Your task to perform on an android device: delete browsing data in the chrome app Image 0: 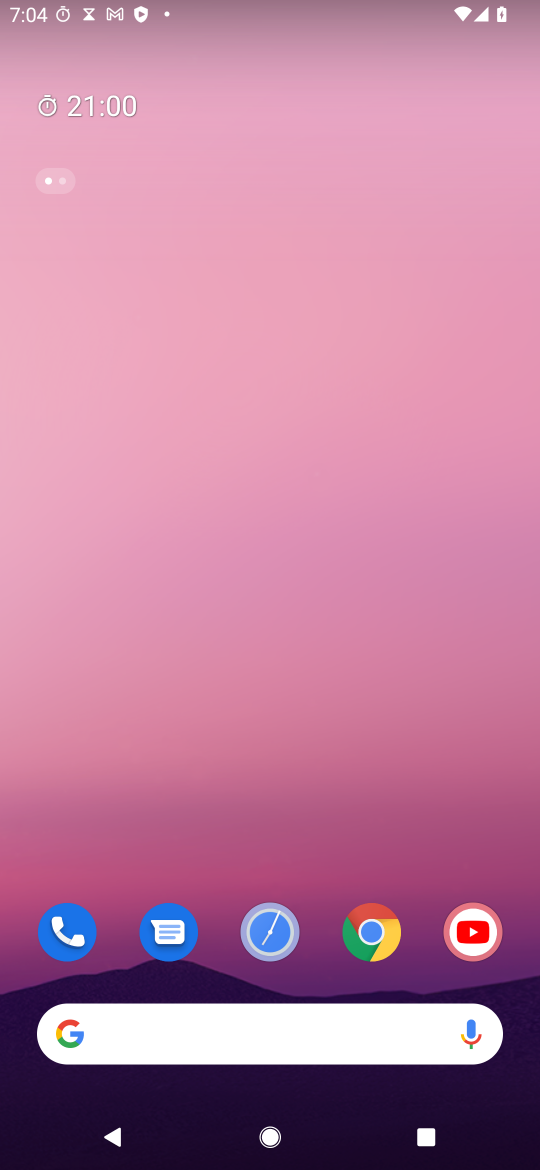
Step 0: drag from (388, 876) to (360, 3)
Your task to perform on an android device: delete browsing data in the chrome app Image 1: 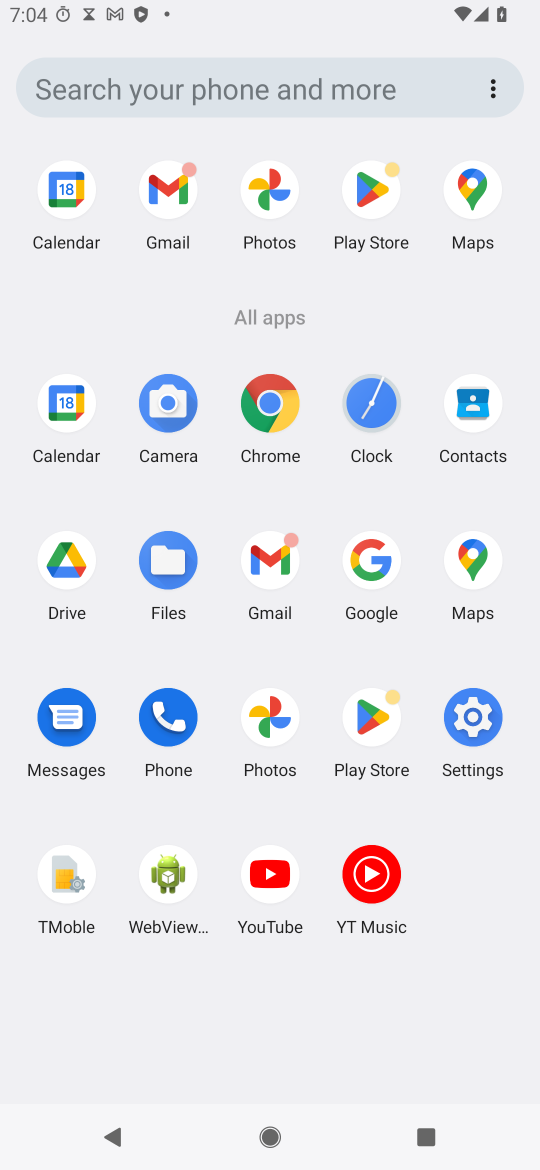
Step 1: click (255, 402)
Your task to perform on an android device: delete browsing data in the chrome app Image 2: 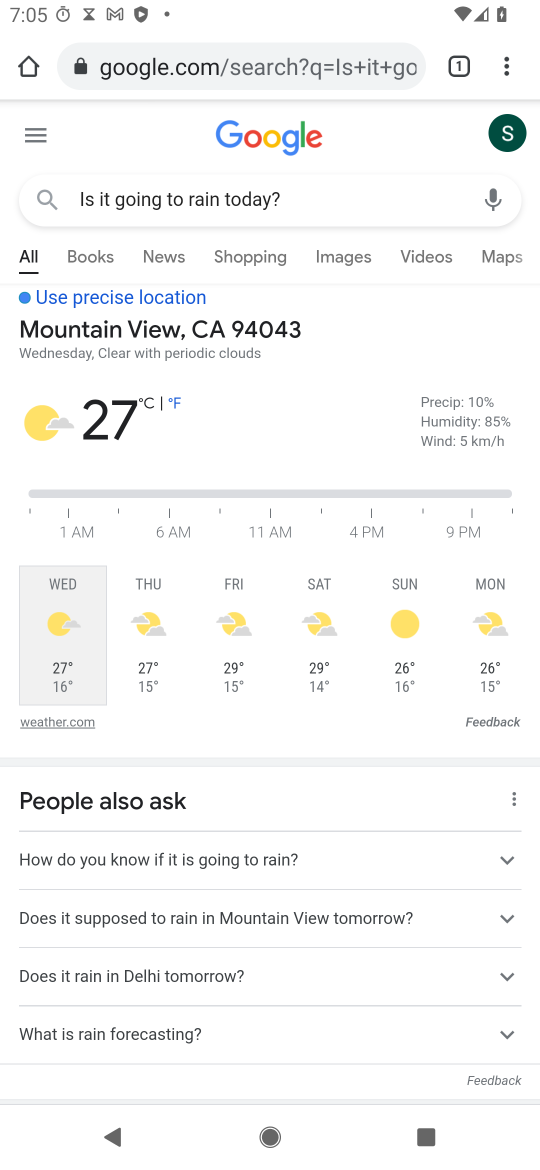
Step 2: click (519, 64)
Your task to perform on an android device: delete browsing data in the chrome app Image 3: 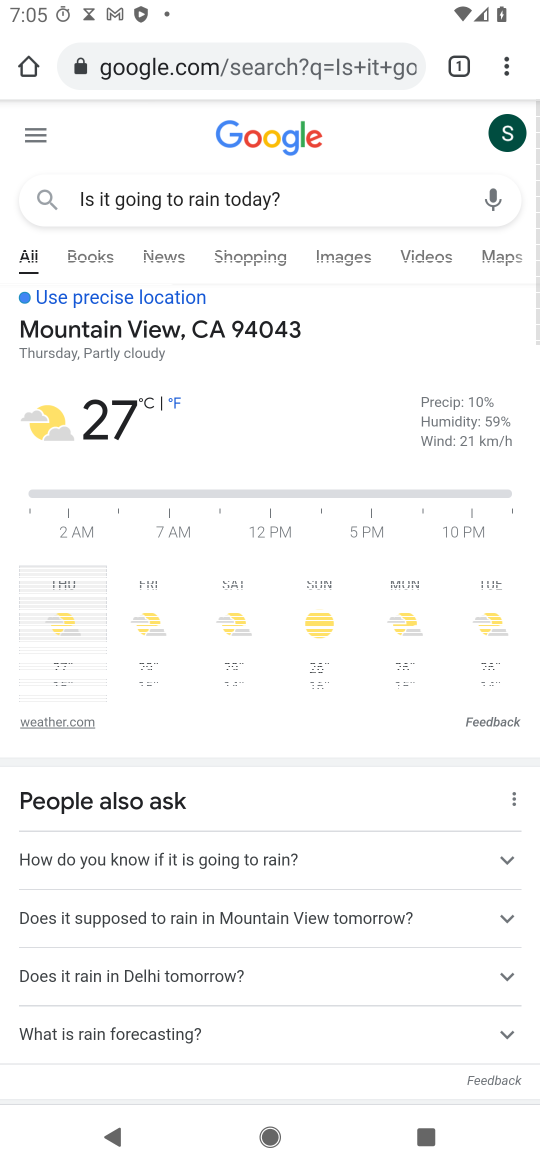
Step 3: drag from (498, 52) to (354, 871)
Your task to perform on an android device: delete browsing data in the chrome app Image 4: 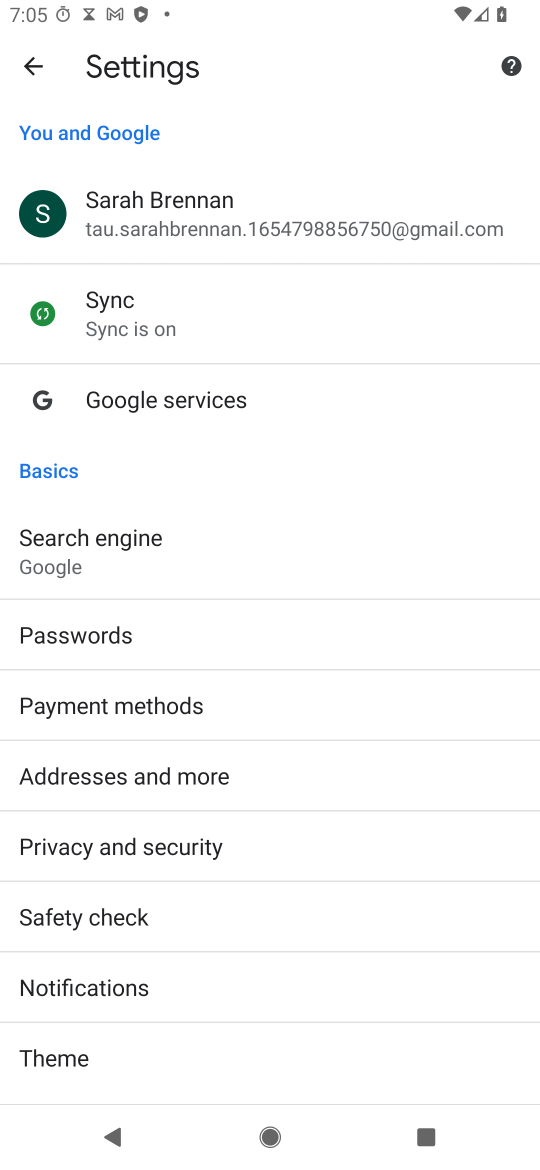
Step 4: drag from (272, 870) to (211, 329)
Your task to perform on an android device: delete browsing data in the chrome app Image 5: 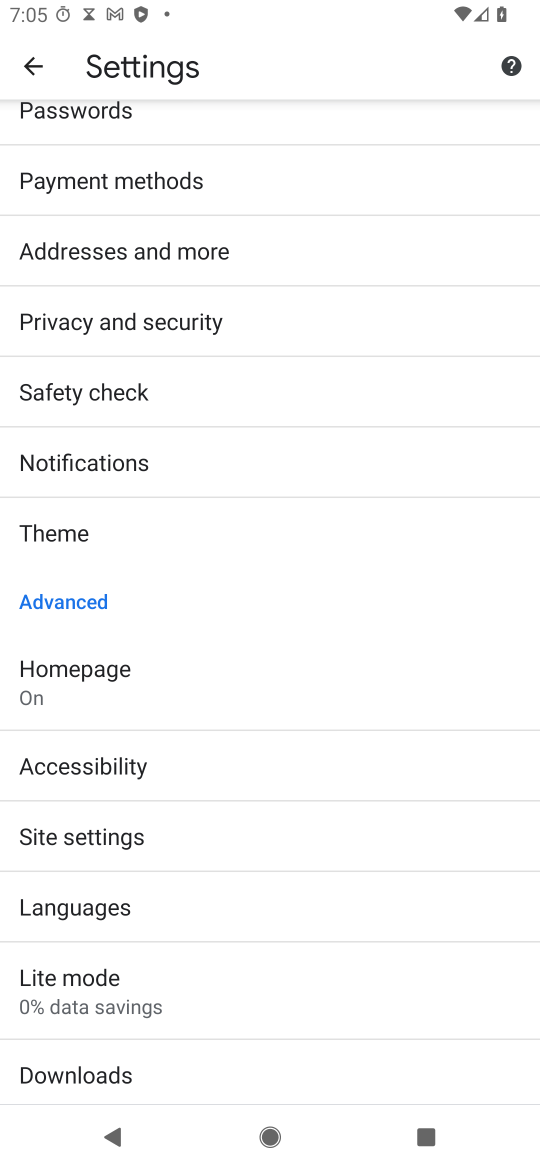
Step 5: drag from (237, 316) to (247, 794)
Your task to perform on an android device: delete browsing data in the chrome app Image 6: 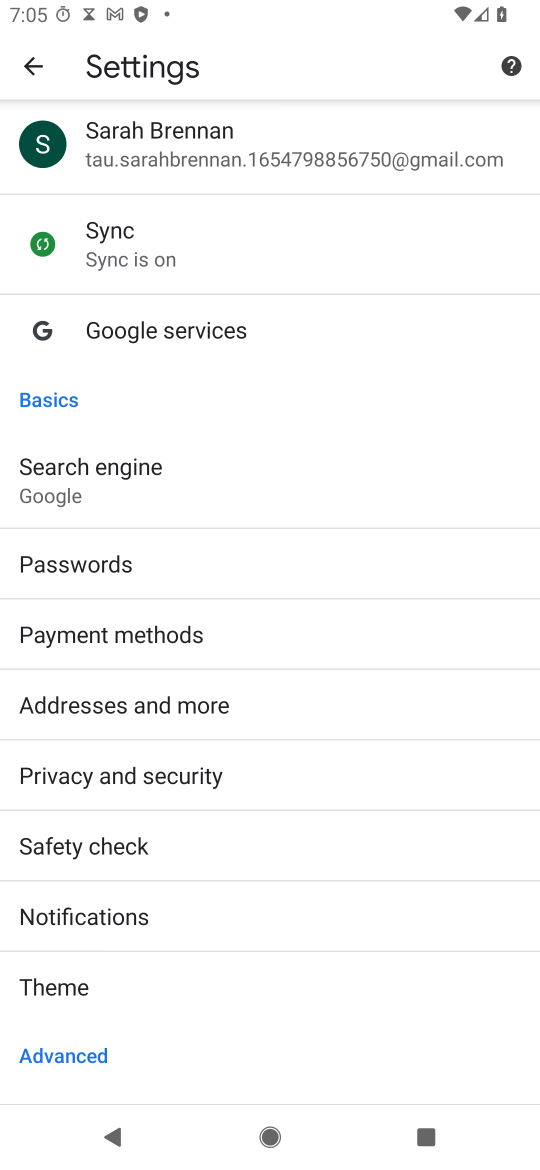
Step 6: drag from (213, 986) to (205, 180)
Your task to perform on an android device: delete browsing data in the chrome app Image 7: 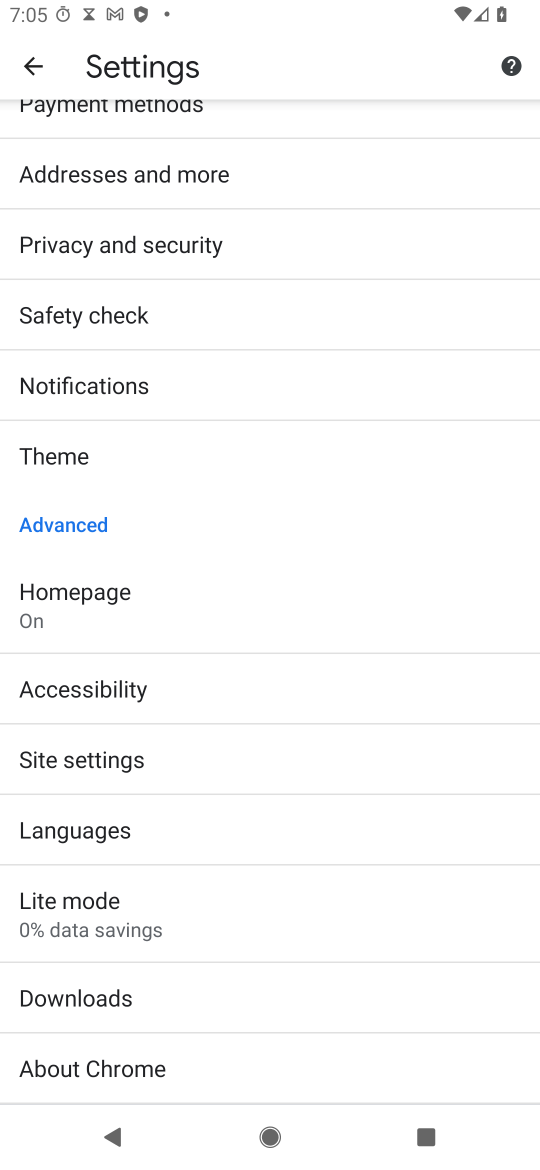
Step 7: drag from (216, 909) to (158, 233)
Your task to perform on an android device: delete browsing data in the chrome app Image 8: 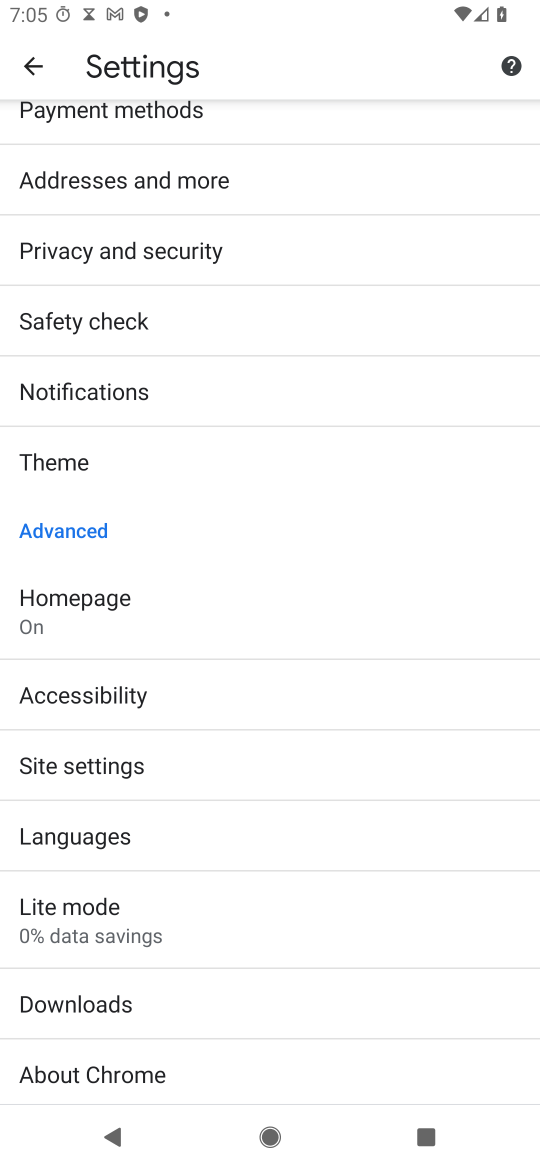
Step 8: click (123, 266)
Your task to perform on an android device: delete browsing data in the chrome app Image 9: 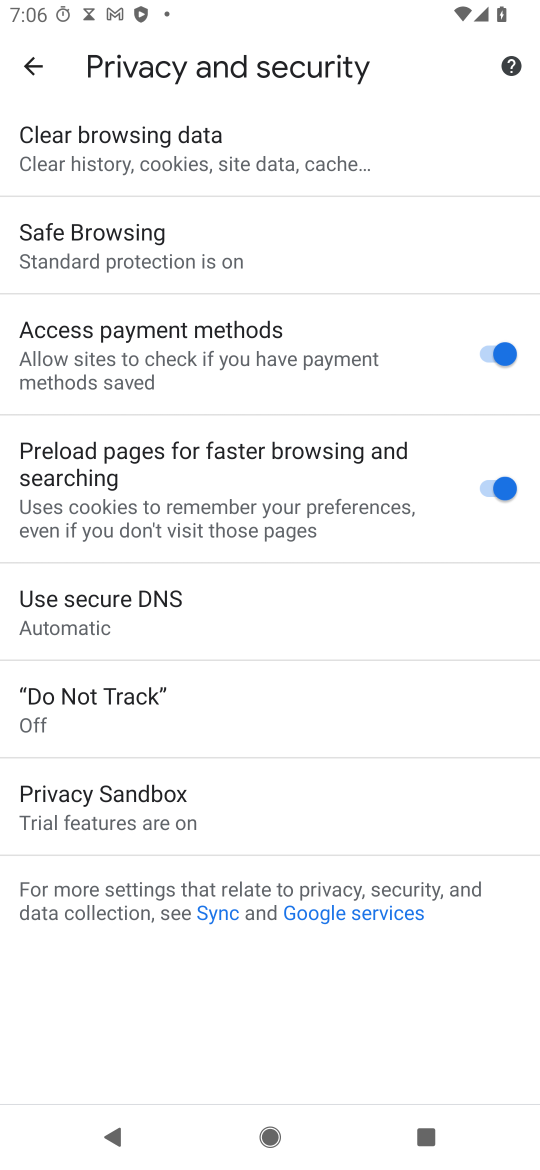
Step 9: click (239, 164)
Your task to perform on an android device: delete browsing data in the chrome app Image 10: 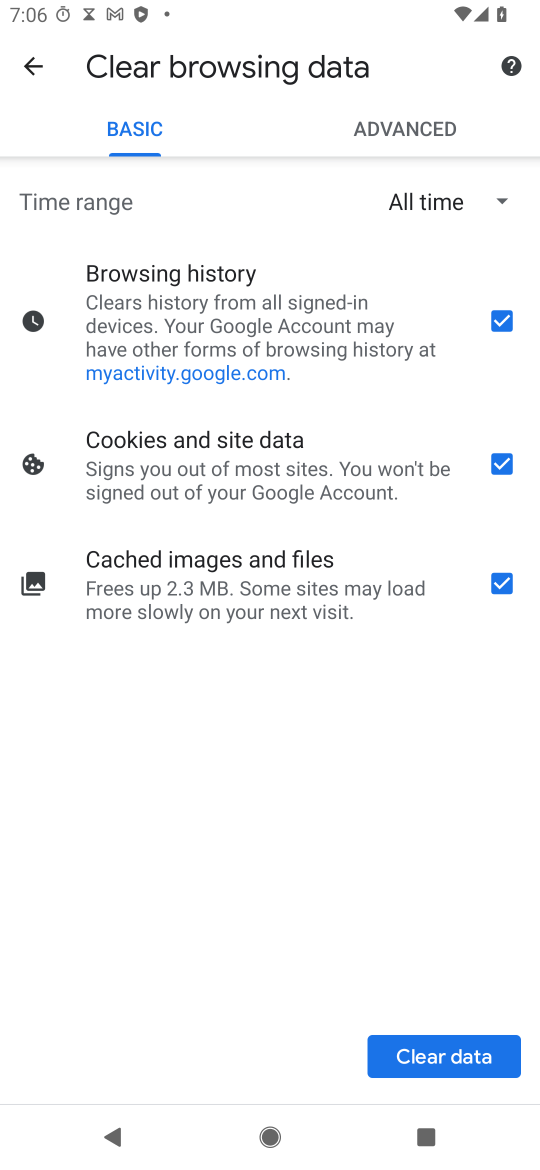
Step 10: click (487, 1055)
Your task to perform on an android device: delete browsing data in the chrome app Image 11: 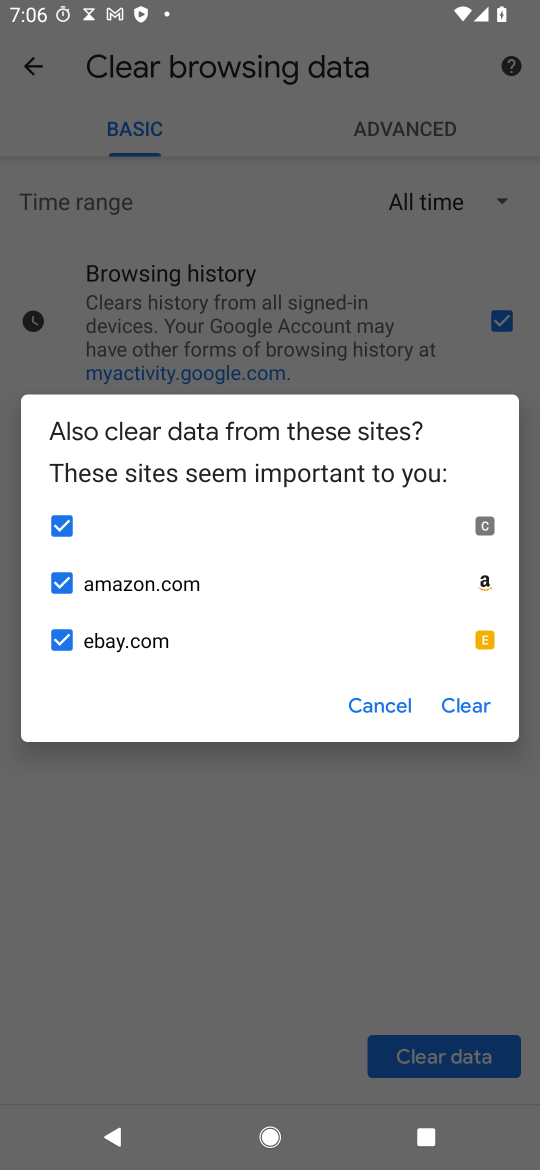
Step 11: click (449, 694)
Your task to perform on an android device: delete browsing data in the chrome app Image 12: 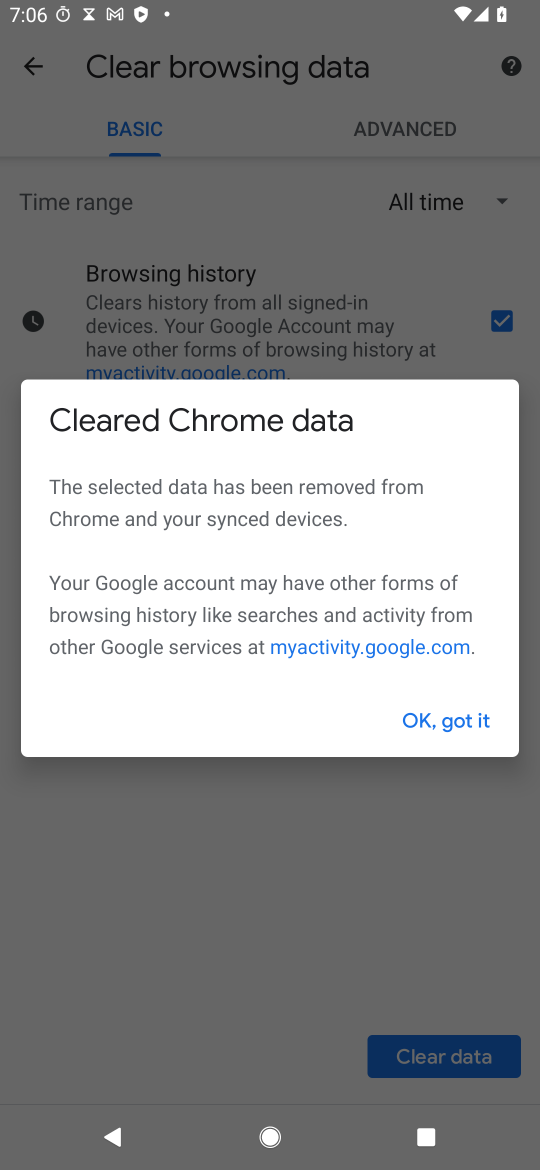
Step 12: click (466, 722)
Your task to perform on an android device: delete browsing data in the chrome app Image 13: 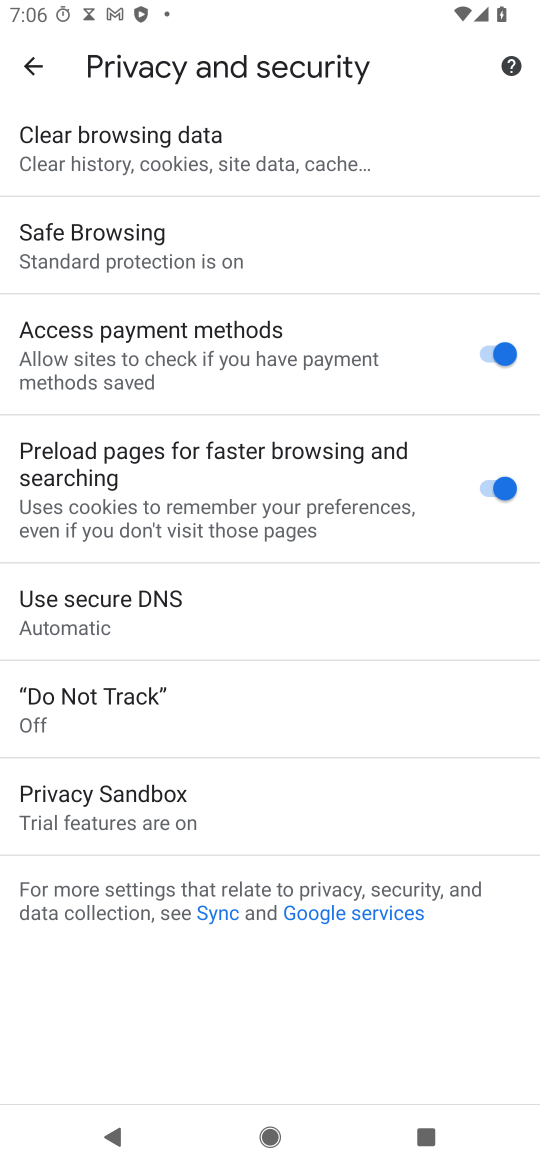
Step 13: task complete